Your task to perform on an android device: toggle location history Image 0: 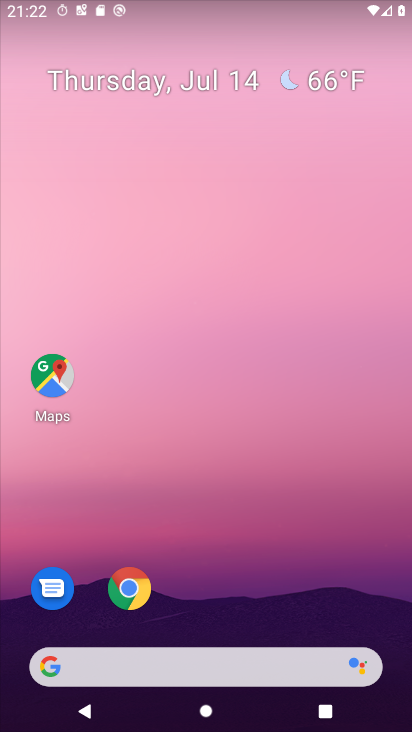
Step 0: drag from (334, 590) to (371, 59)
Your task to perform on an android device: toggle location history Image 1: 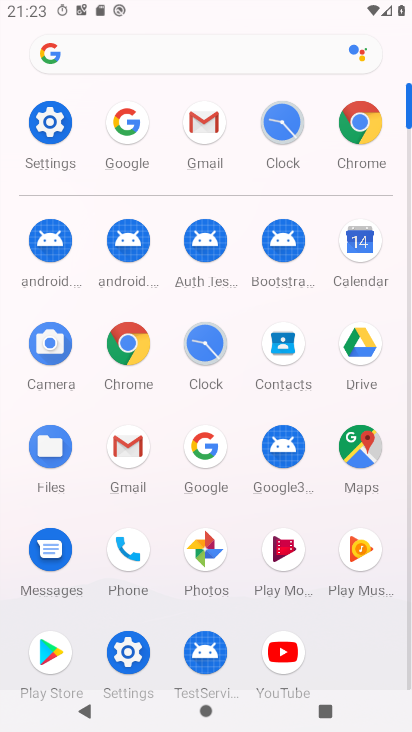
Step 1: click (67, 144)
Your task to perform on an android device: toggle location history Image 2: 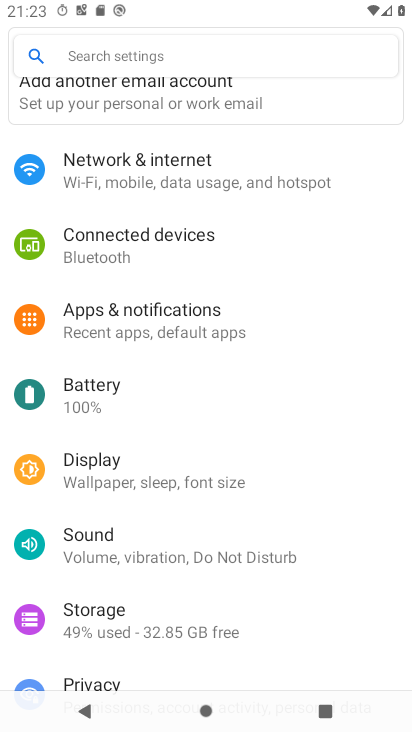
Step 2: drag from (323, 444) to (317, 327)
Your task to perform on an android device: toggle location history Image 3: 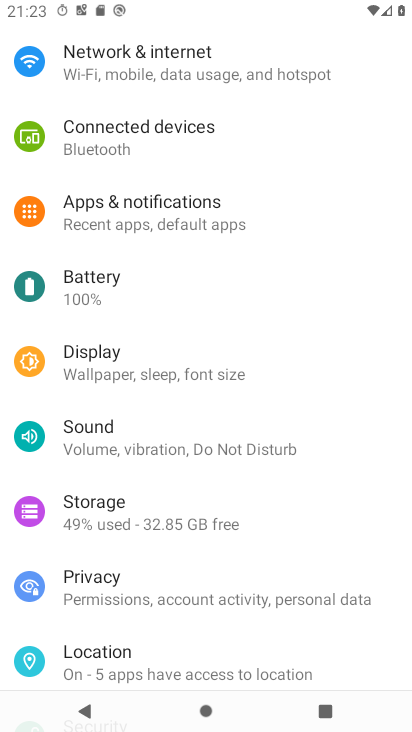
Step 3: drag from (342, 520) to (357, 381)
Your task to perform on an android device: toggle location history Image 4: 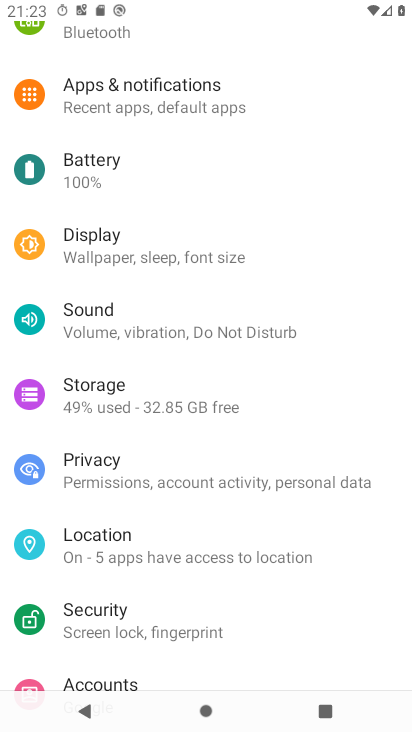
Step 4: click (291, 544)
Your task to perform on an android device: toggle location history Image 5: 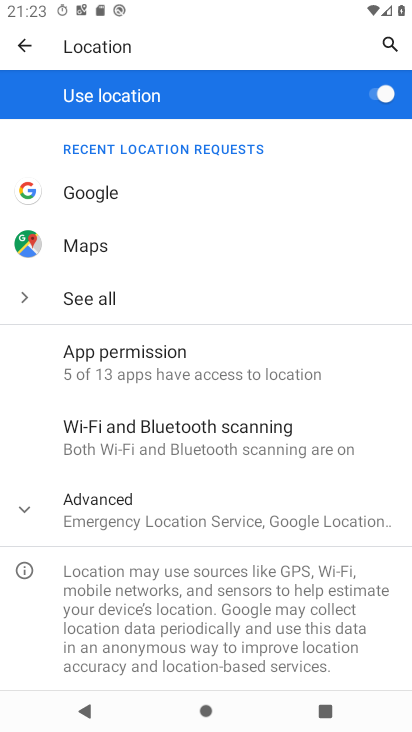
Step 5: click (272, 522)
Your task to perform on an android device: toggle location history Image 6: 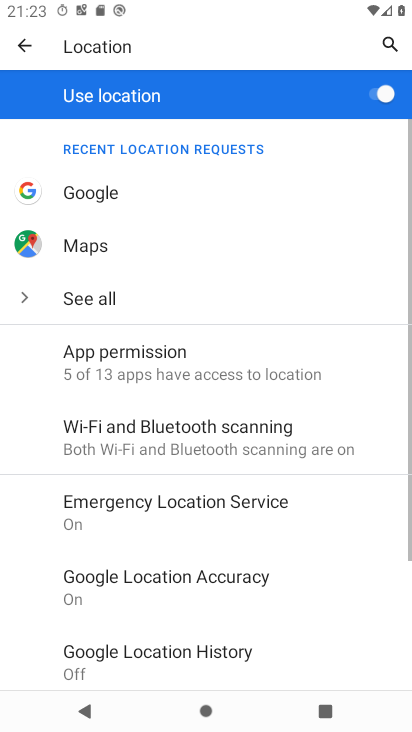
Step 6: drag from (291, 561) to (306, 483)
Your task to perform on an android device: toggle location history Image 7: 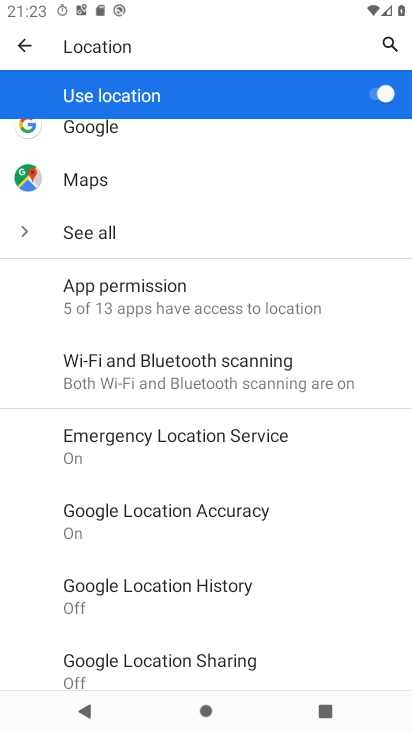
Step 7: drag from (324, 570) to (325, 459)
Your task to perform on an android device: toggle location history Image 8: 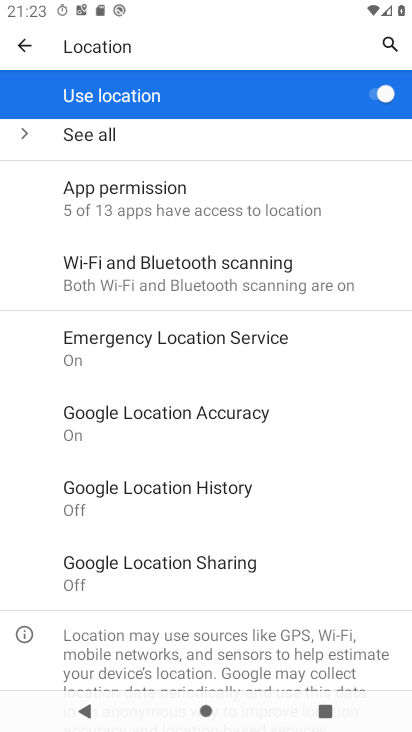
Step 8: drag from (339, 541) to (337, 426)
Your task to perform on an android device: toggle location history Image 9: 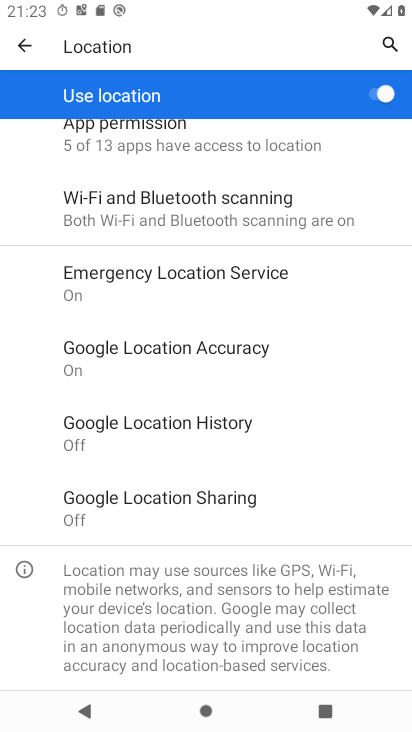
Step 9: click (274, 432)
Your task to perform on an android device: toggle location history Image 10: 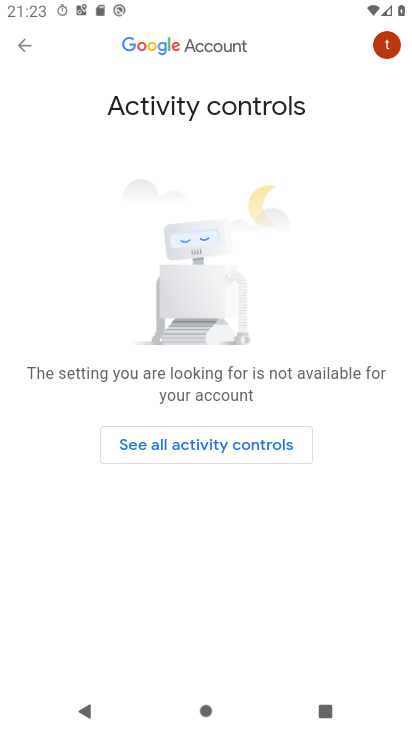
Step 10: click (283, 446)
Your task to perform on an android device: toggle location history Image 11: 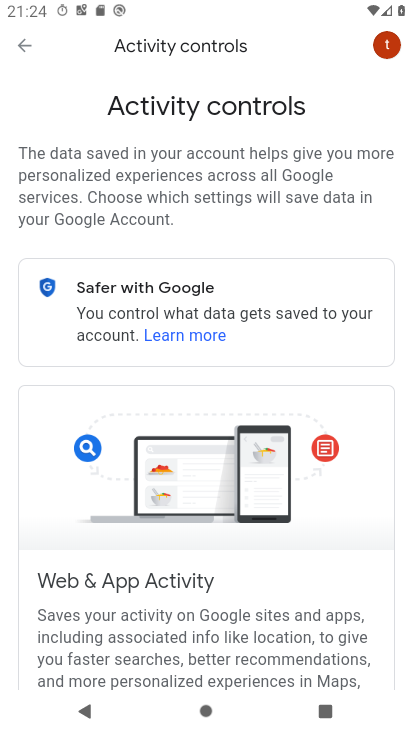
Step 11: drag from (324, 568) to (322, 282)
Your task to perform on an android device: toggle location history Image 12: 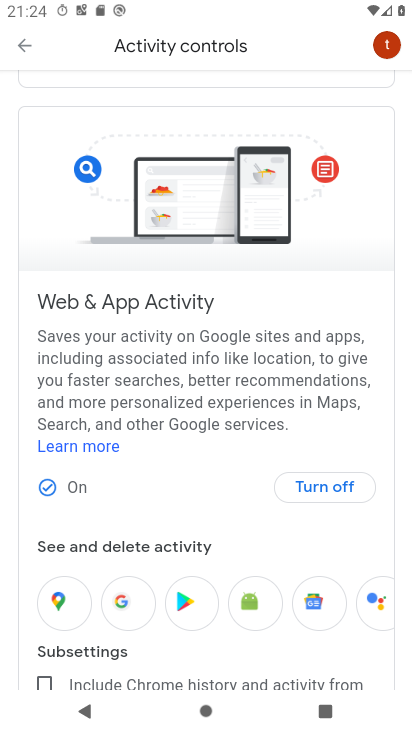
Step 12: click (335, 488)
Your task to perform on an android device: toggle location history Image 13: 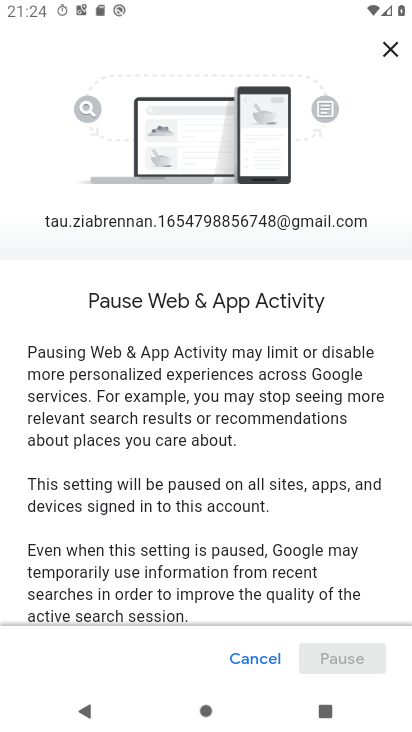
Step 13: drag from (304, 562) to (305, 384)
Your task to perform on an android device: toggle location history Image 14: 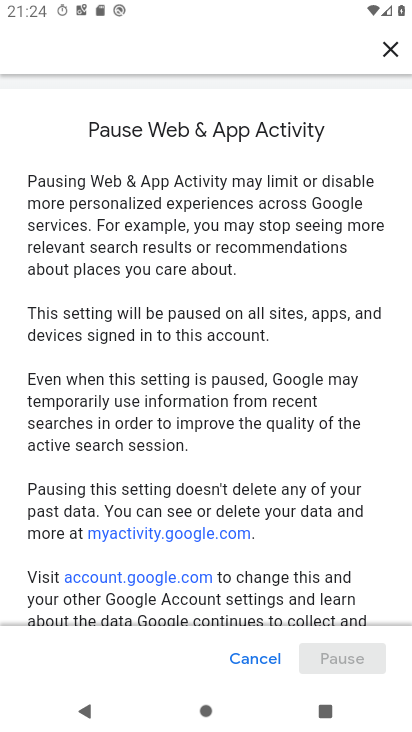
Step 14: drag from (288, 545) to (285, 383)
Your task to perform on an android device: toggle location history Image 15: 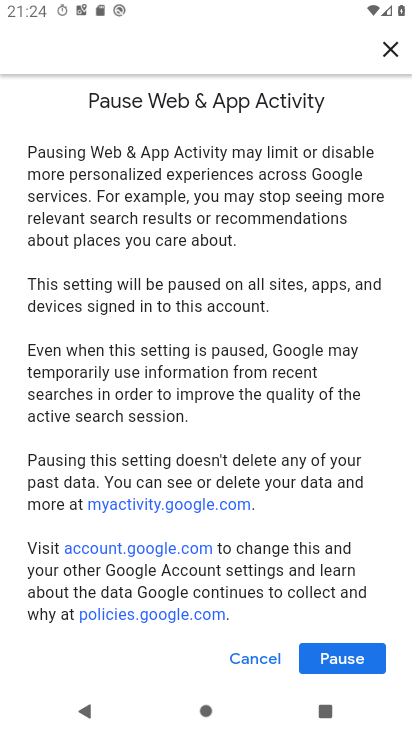
Step 15: click (337, 662)
Your task to perform on an android device: toggle location history Image 16: 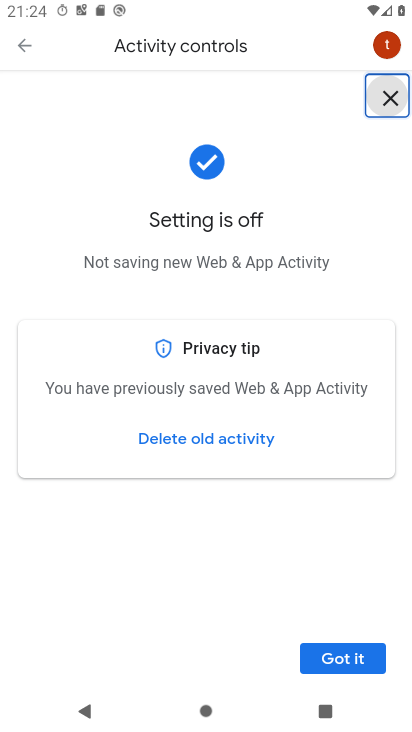
Step 16: task complete